Your task to perform on an android device: turn off javascript in the chrome app Image 0: 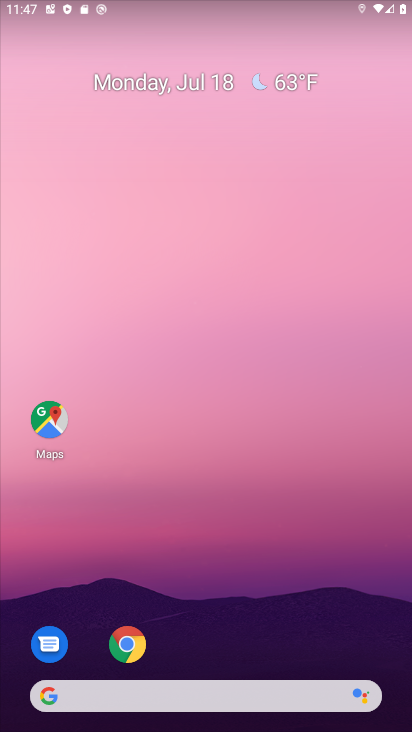
Step 0: drag from (243, 731) to (229, 237)
Your task to perform on an android device: turn off javascript in the chrome app Image 1: 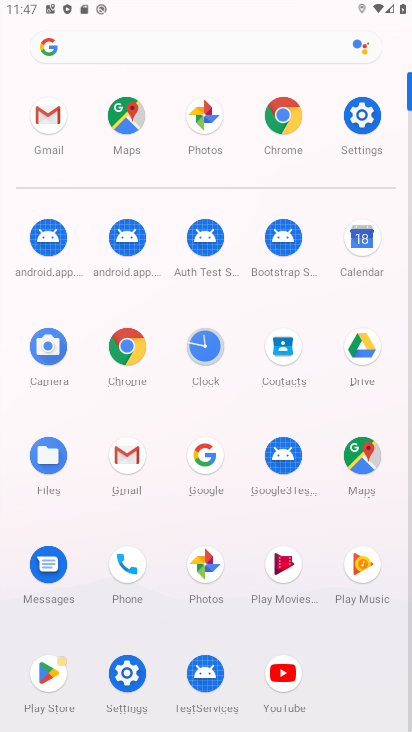
Step 1: click (129, 348)
Your task to perform on an android device: turn off javascript in the chrome app Image 2: 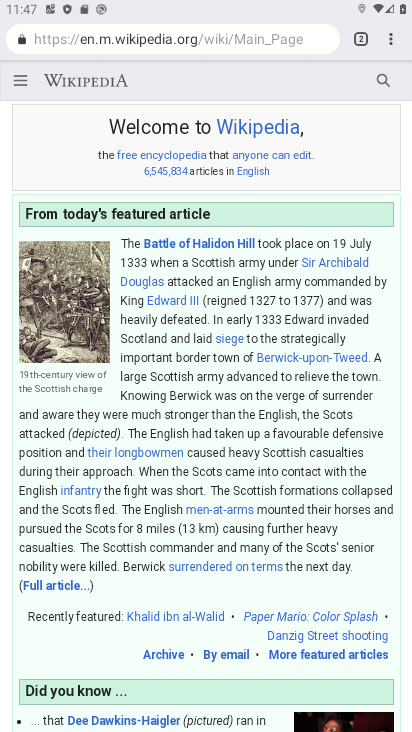
Step 2: click (389, 43)
Your task to perform on an android device: turn off javascript in the chrome app Image 3: 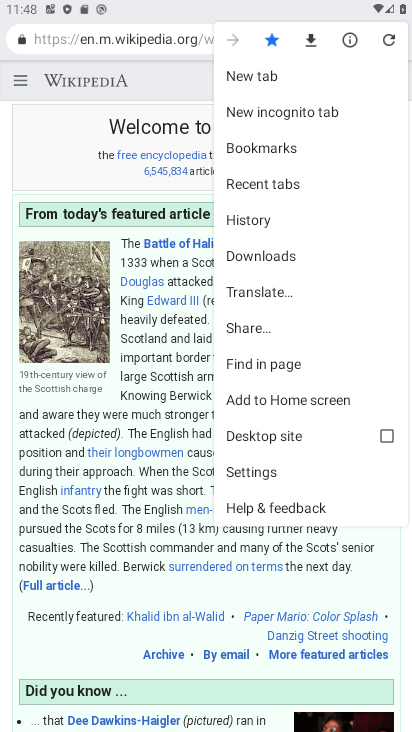
Step 3: click (252, 471)
Your task to perform on an android device: turn off javascript in the chrome app Image 4: 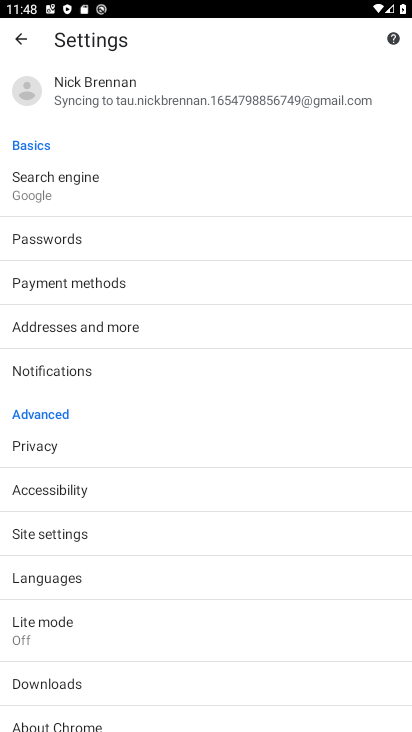
Step 4: click (61, 535)
Your task to perform on an android device: turn off javascript in the chrome app Image 5: 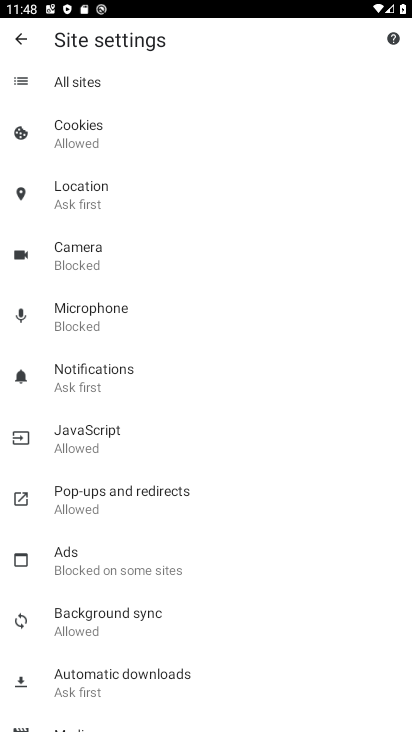
Step 5: click (83, 435)
Your task to perform on an android device: turn off javascript in the chrome app Image 6: 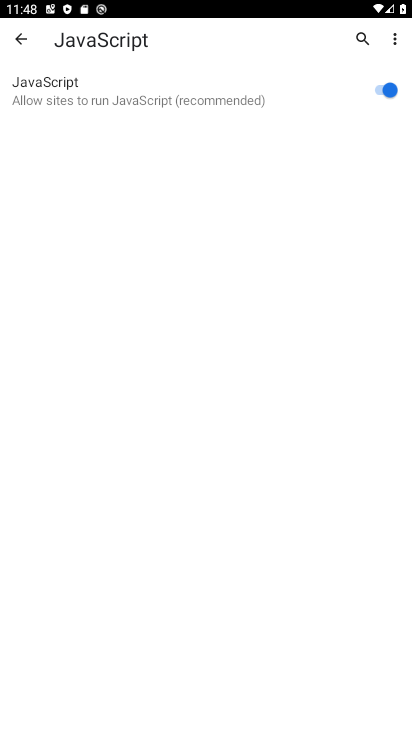
Step 6: click (375, 92)
Your task to perform on an android device: turn off javascript in the chrome app Image 7: 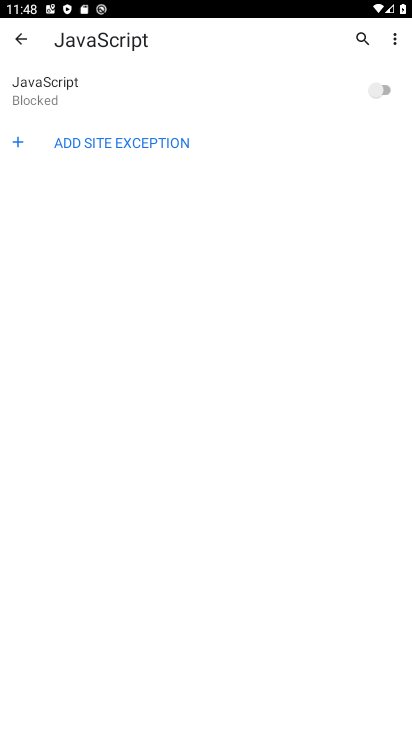
Step 7: task complete